Your task to perform on an android device: Check the news Image 0: 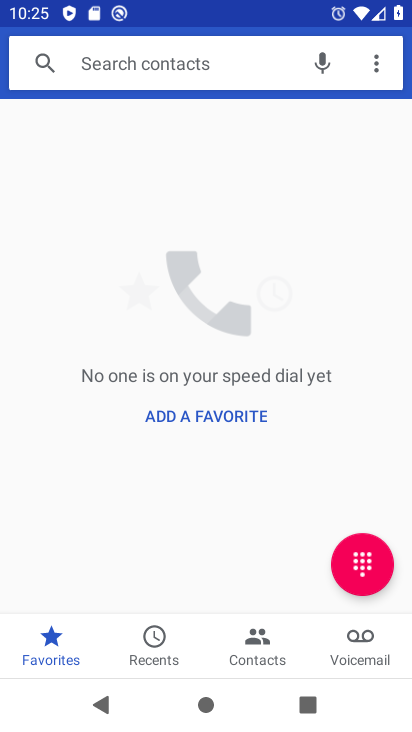
Step 0: press home button
Your task to perform on an android device: Check the news Image 1: 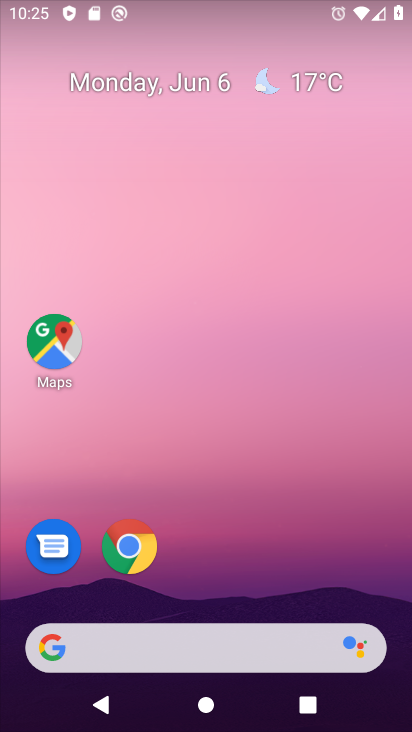
Step 1: click (210, 640)
Your task to perform on an android device: Check the news Image 2: 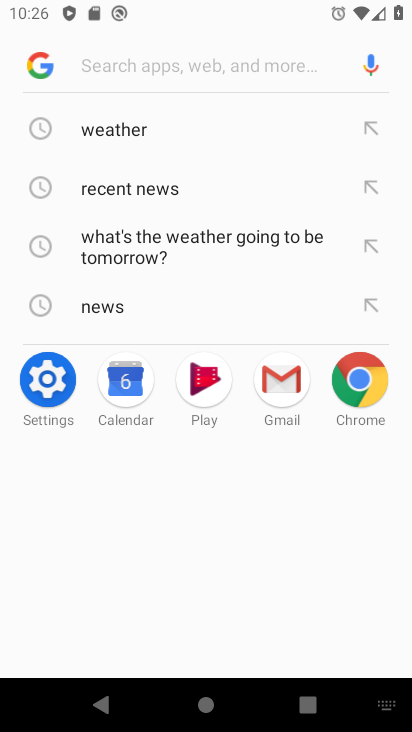
Step 2: click (102, 317)
Your task to perform on an android device: Check the news Image 3: 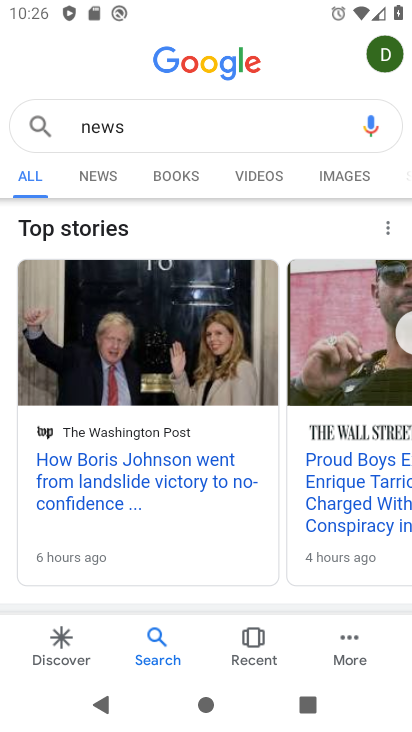
Step 3: task complete